Your task to perform on an android device: check android version Image 0: 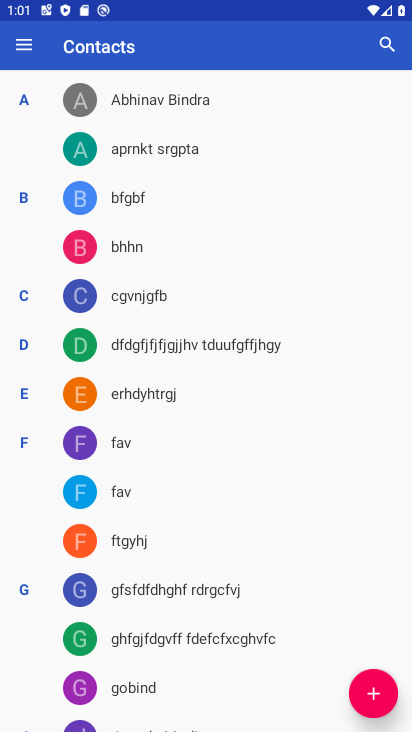
Step 0: press home button
Your task to perform on an android device: check android version Image 1: 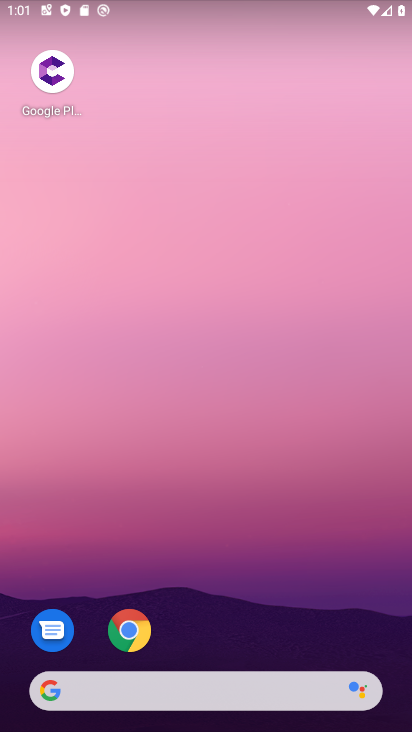
Step 1: drag from (141, 697) to (209, 191)
Your task to perform on an android device: check android version Image 2: 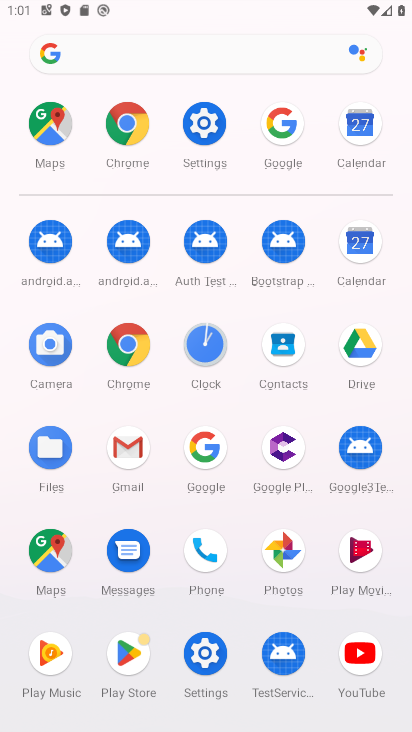
Step 2: click (188, 125)
Your task to perform on an android device: check android version Image 3: 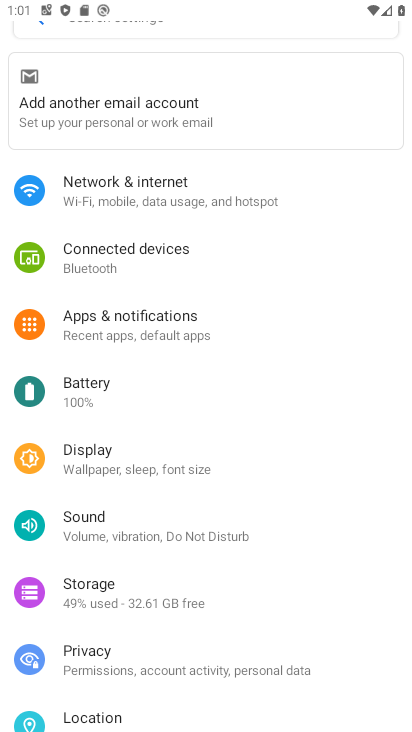
Step 3: task complete